Your task to perform on an android device: find which apps use the phone's location Image 0: 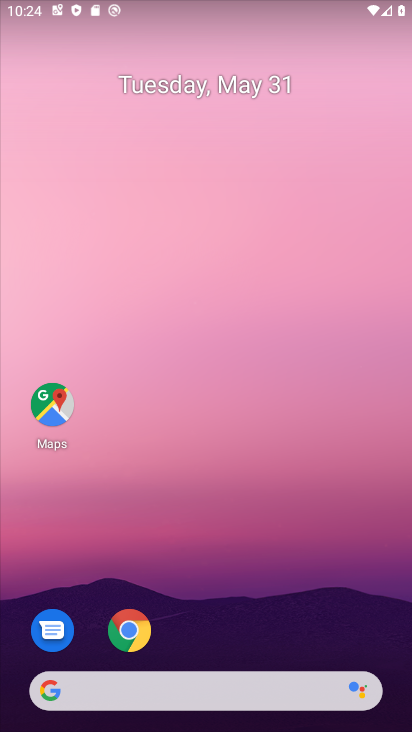
Step 0: drag from (215, 653) to (230, 112)
Your task to perform on an android device: find which apps use the phone's location Image 1: 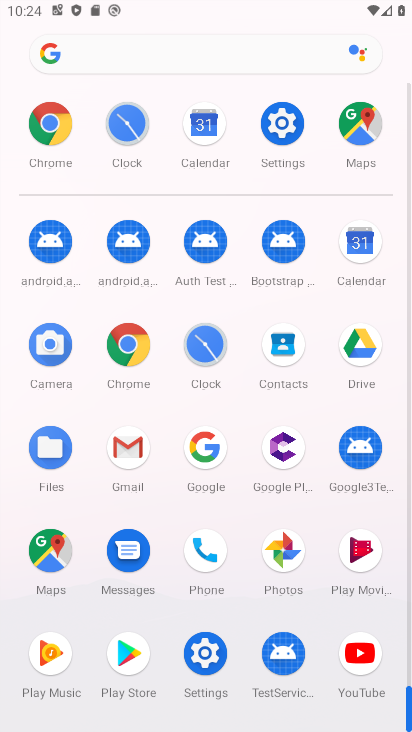
Step 1: click (292, 137)
Your task to perform on an android device: find which apps use the phone's location Image 2: 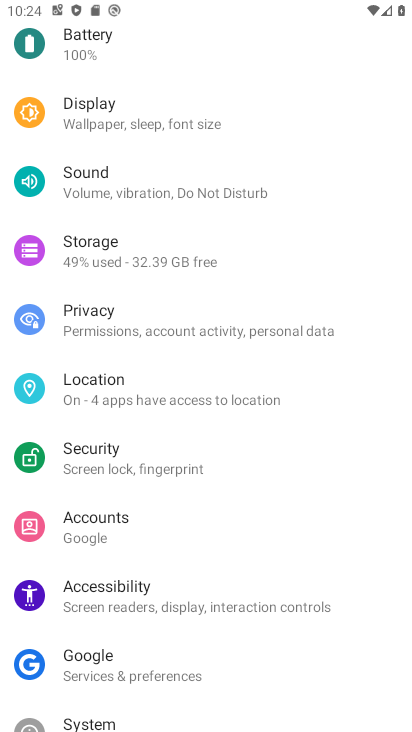
Step 2: click (189, 391)
Your task to perform on an android device: find which apps use the phone's location Image 3: 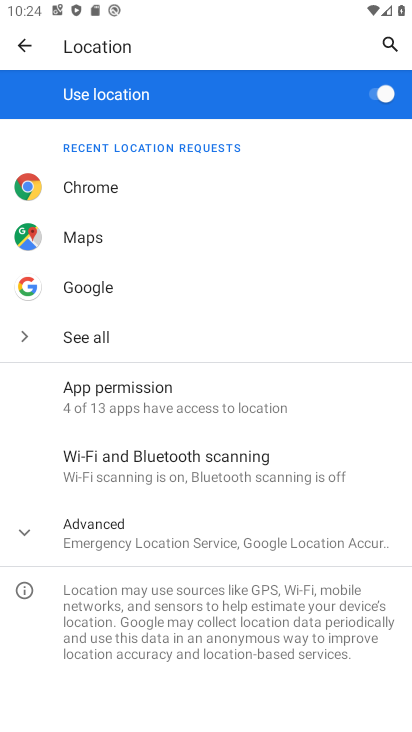
Step 3: click (162, 397)
Your task to perform on an android device: find which apps use the phone's location Image 4: 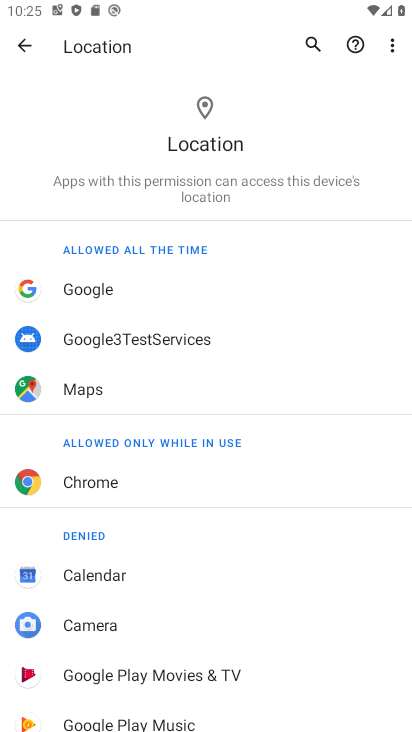
Step 4: task complete